Your task to perform on an android device: open app "Grab" (install if not already installed) and enter user name: "interspersion@gmail.com" and password: "aristocrats" Image 0: 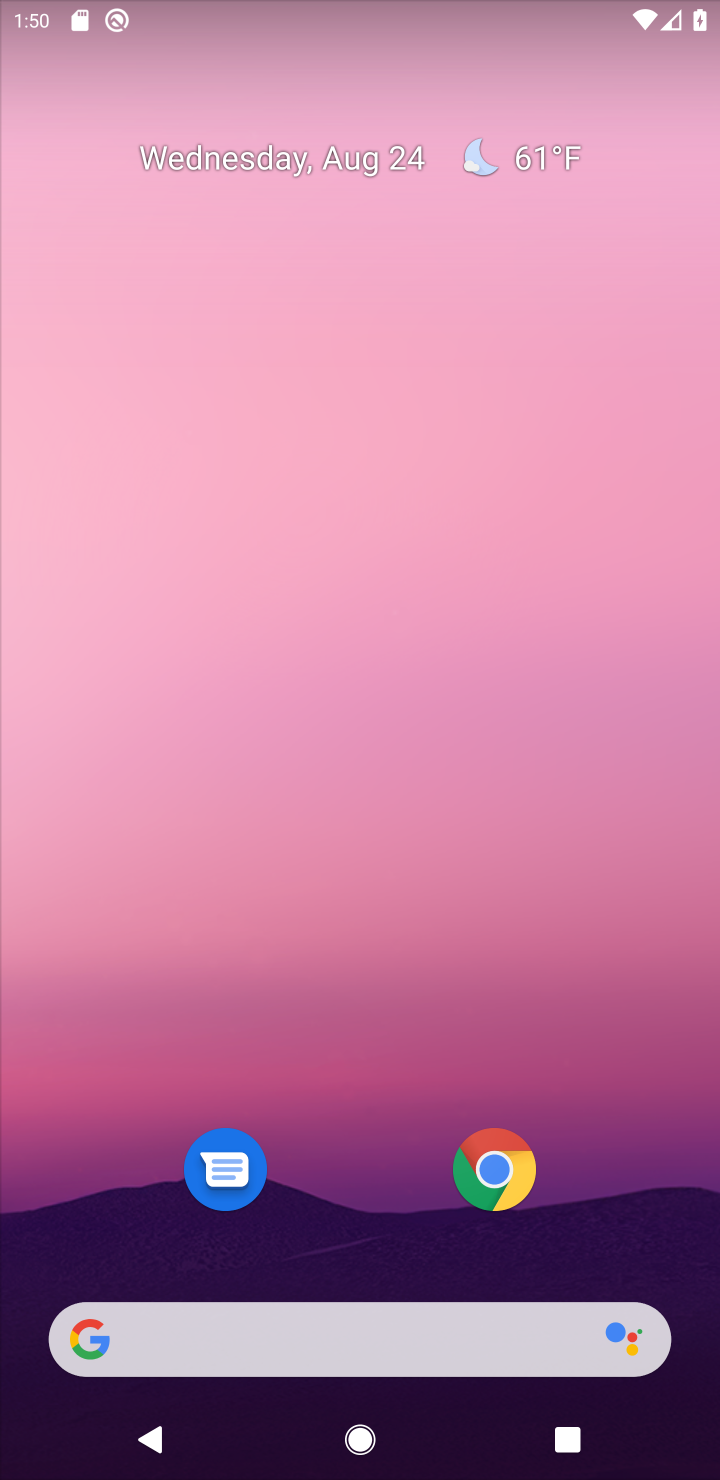
Step 0: drag from (408, 1251) to (74, 201)
Your task to perform on an android device: open app "Grab" (install if not already installed) and enter user name: "interspersion@gmail.com" and password: "aristocrats" Image 1: 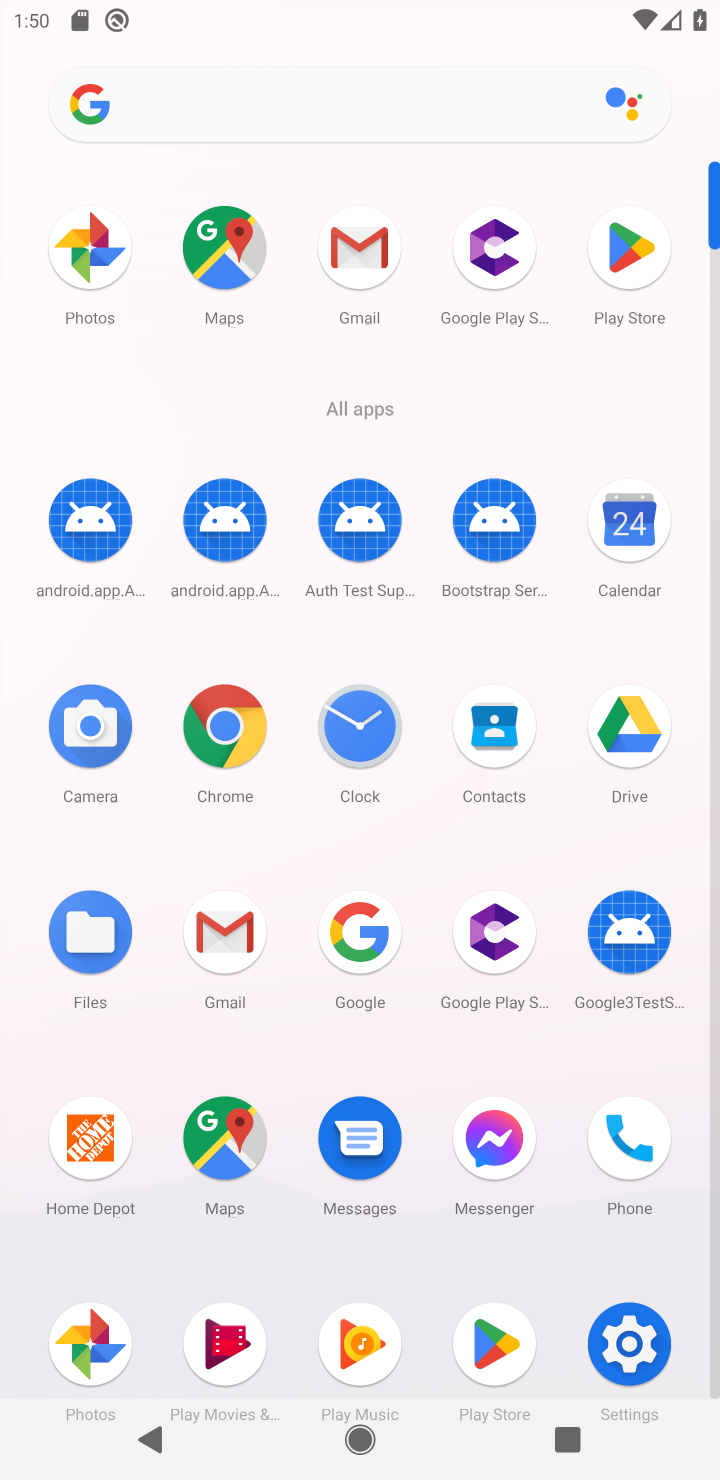
Step 1: click (616, 214)
Your task to perform on an android device: open app "Grab" (install if not already installed) and enter user name: "interspersion@gmail.com" and password: "aristocrats" Image 2: 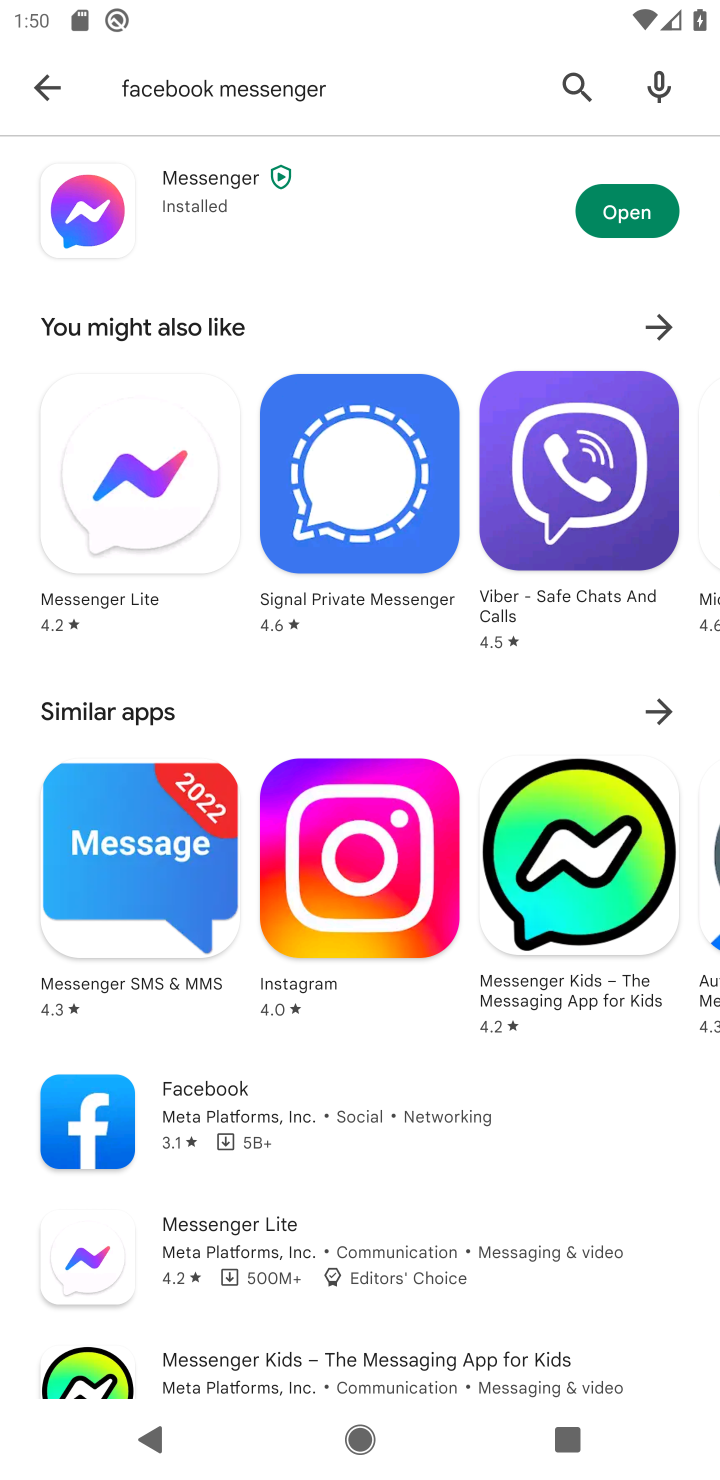
Step 2: click (53, 94)
Your task to perform on an android device: open app "Grab" (install if not already installed) and enter user name: "interspersion@gmail.com" and password: "aristocrats" Image 3: 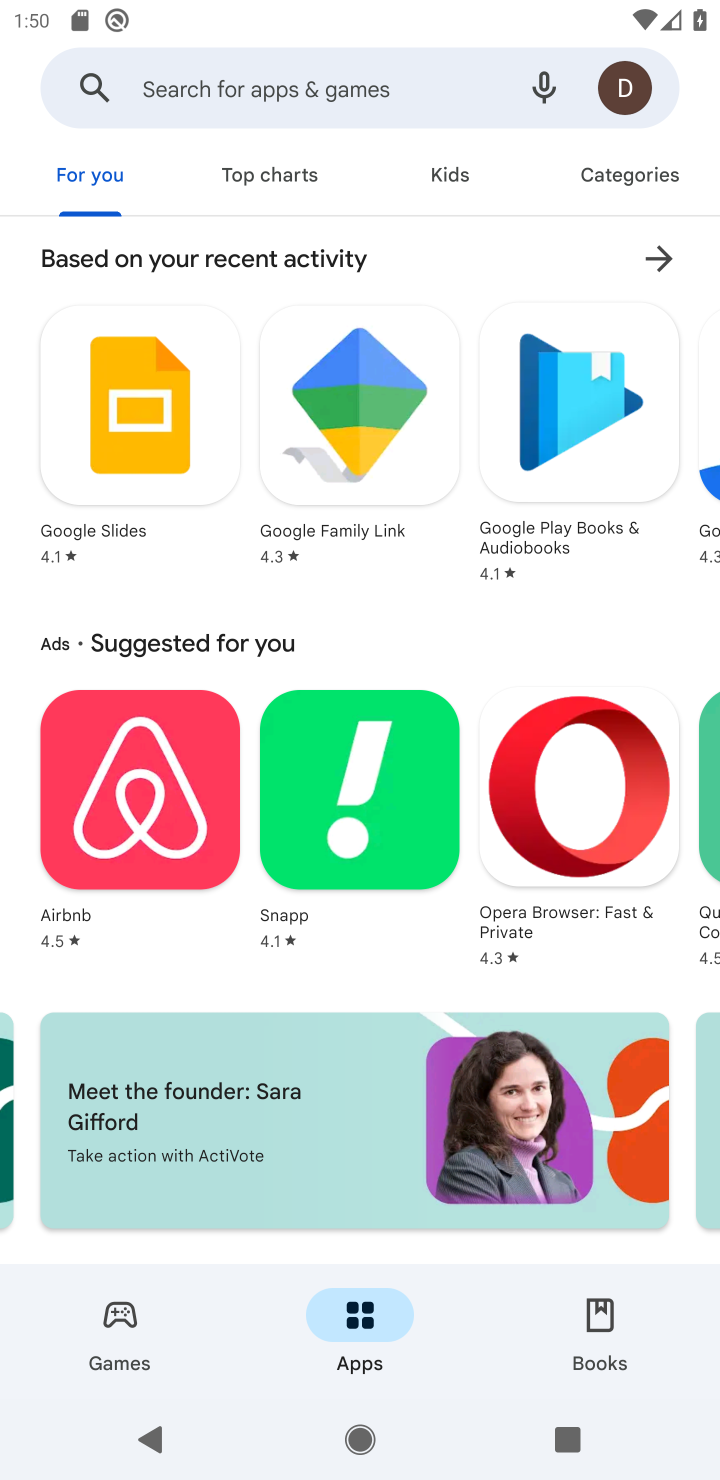
Step 3: click (158, 97)
Your task to perform on an android device: open app "Grab" (install if not already installed) and enter user name: "interspersion@gmail.com" and password: "aristocrats" Image 4: 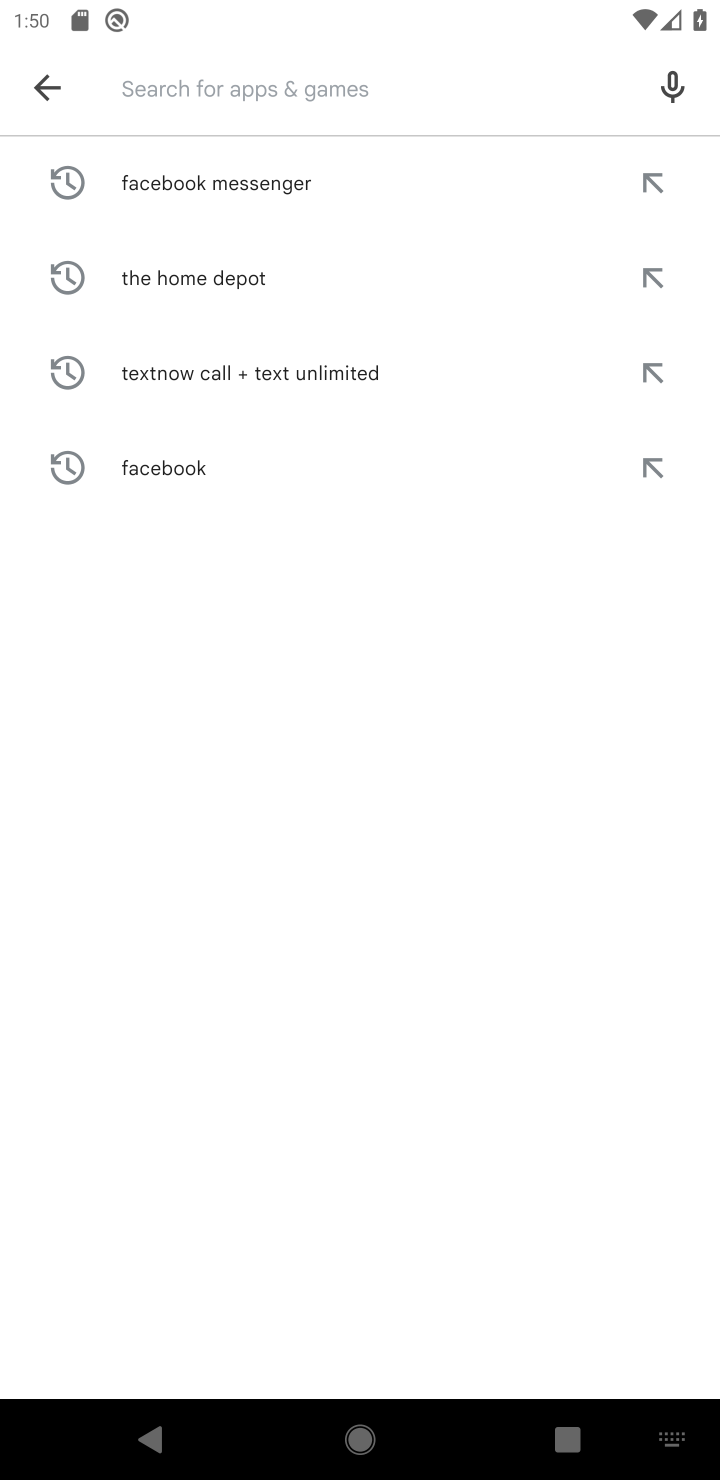
Step 4: type "Grab"
Your task to perform on an android device: open app "Grab" (install if not already installed) and enter user name: "interspersion@gmail.com" and password: "aristocrats" Image 5: 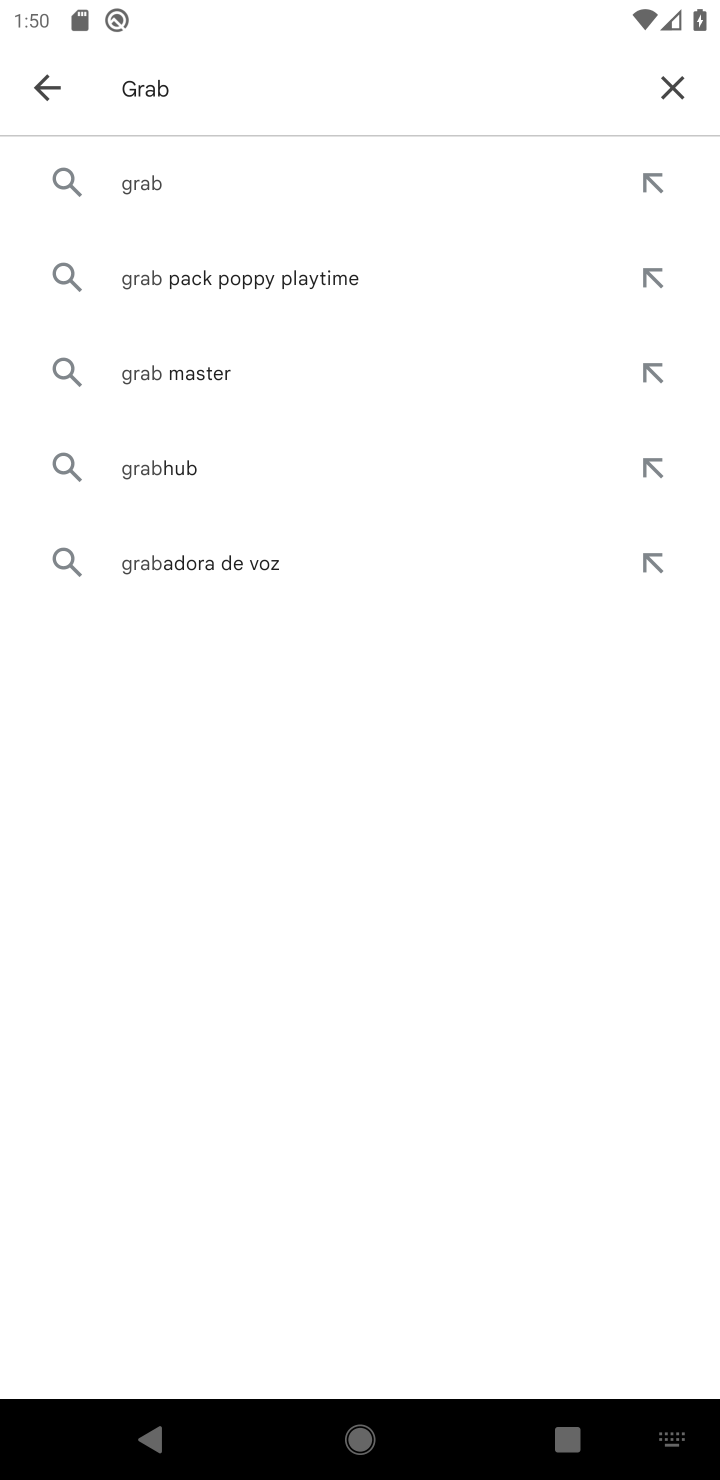
Step 5: click (201, 181)
Your task to perform on an android device: open app "Grab" (install if not already installed) and enter user name: "interspersion@gmail.com" and password: "aristocrats" Image 6: 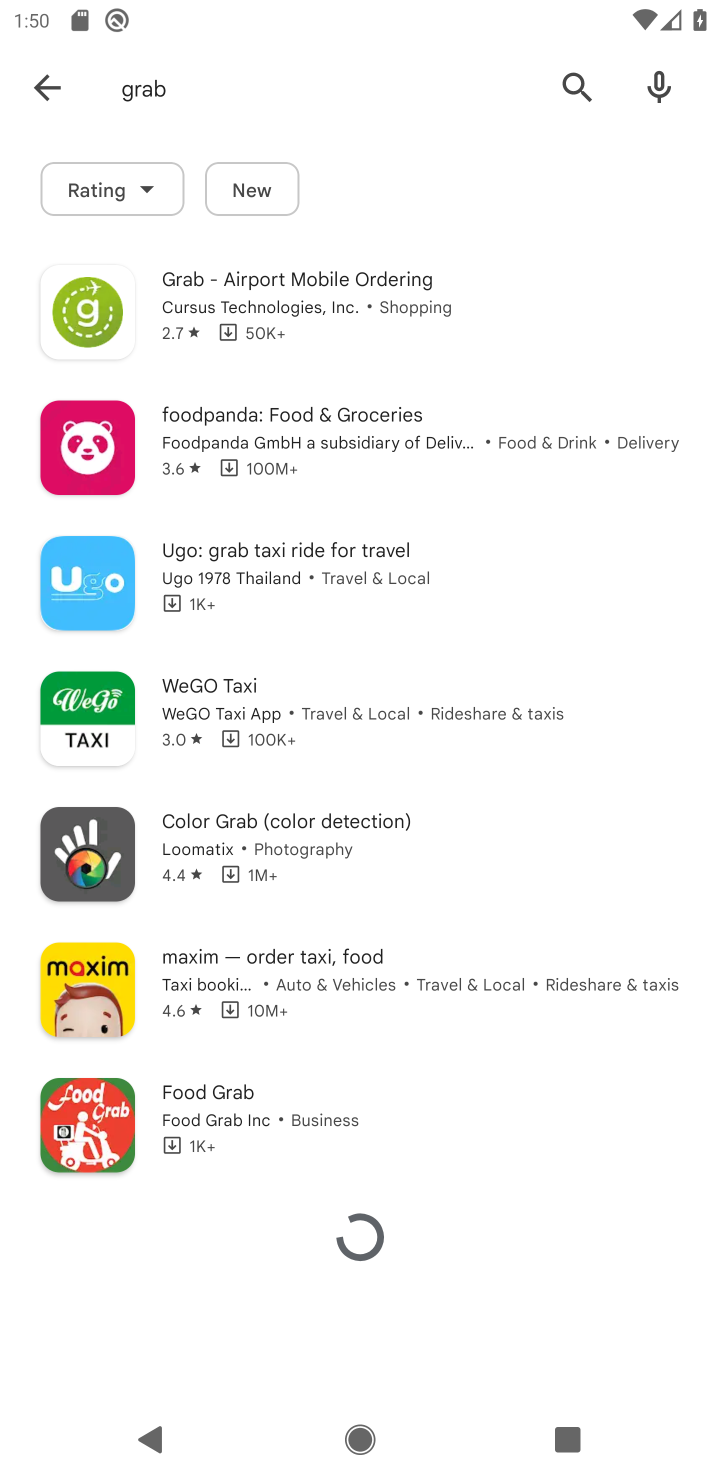
Step 6: click (368, 342)
Your task to perform on an android device: open app "Grab" (install if not already installed) and enter user name: "interspersion@gmail.com" and password: "aristocrats" Image 7: 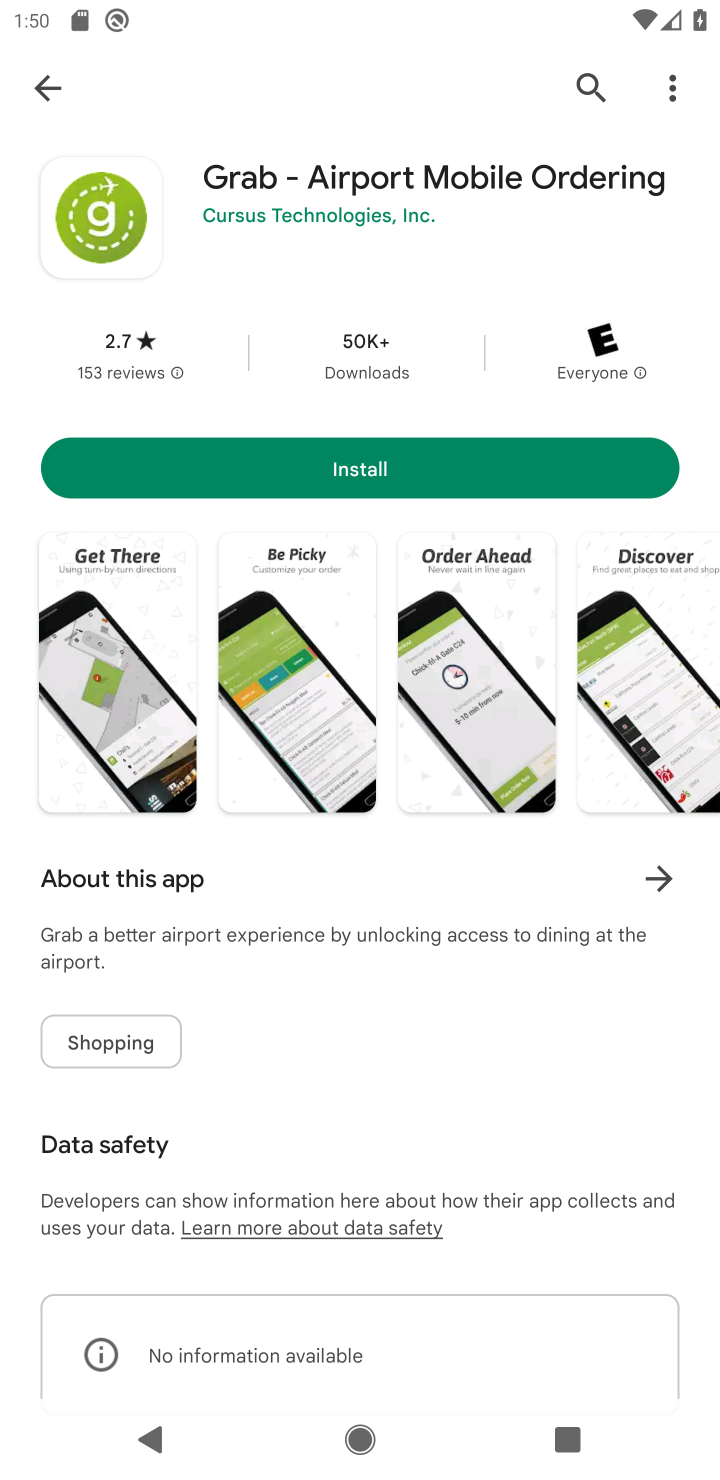
Step 7: click (295, 461)
Your task to perform on an android device: open app "Grab" (install if not already installed) and enter user name: "interspersion@gmail.com" and password: "aristocrats" Image 8: 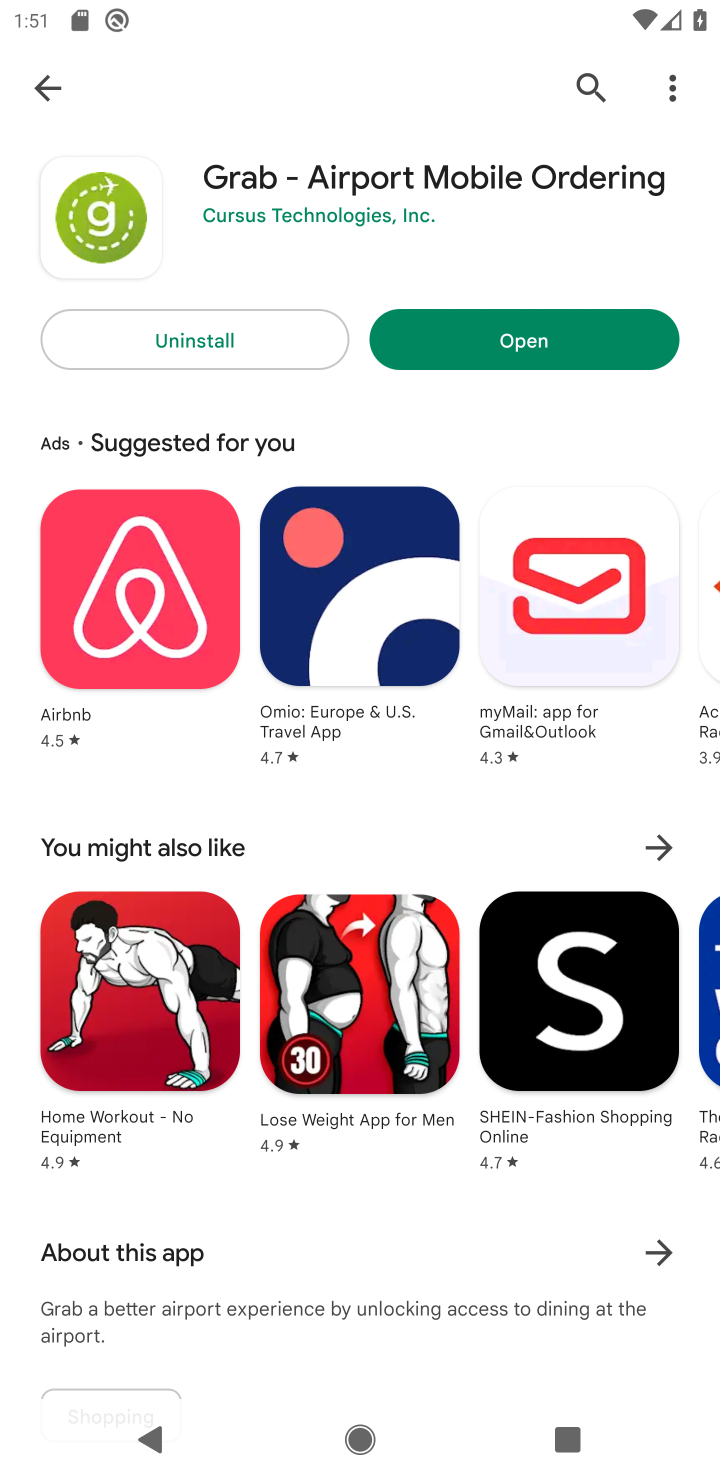
Step 8: click (587, 315)
Your task to perform on an android device: open app "Grab" (install if not already installed) and enter user name: "interspersion@gmail.com" and password: "aristocrats" Image 9: 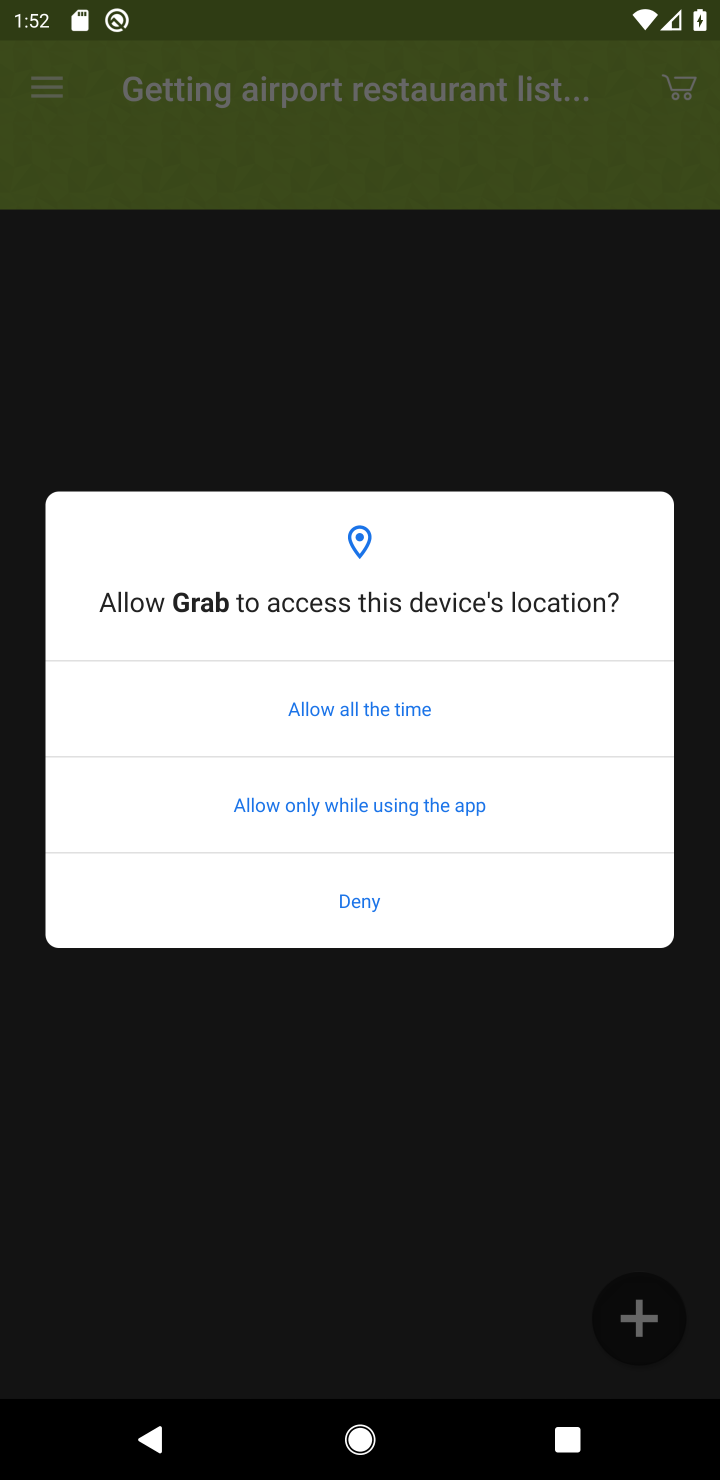
Step 9: click (352, 712)
Your task to perform on an android device: open app "Grab" (install if not already installed) and enter user name: "interspersion@gmail.com" and password: "aristocrats" Image 10: 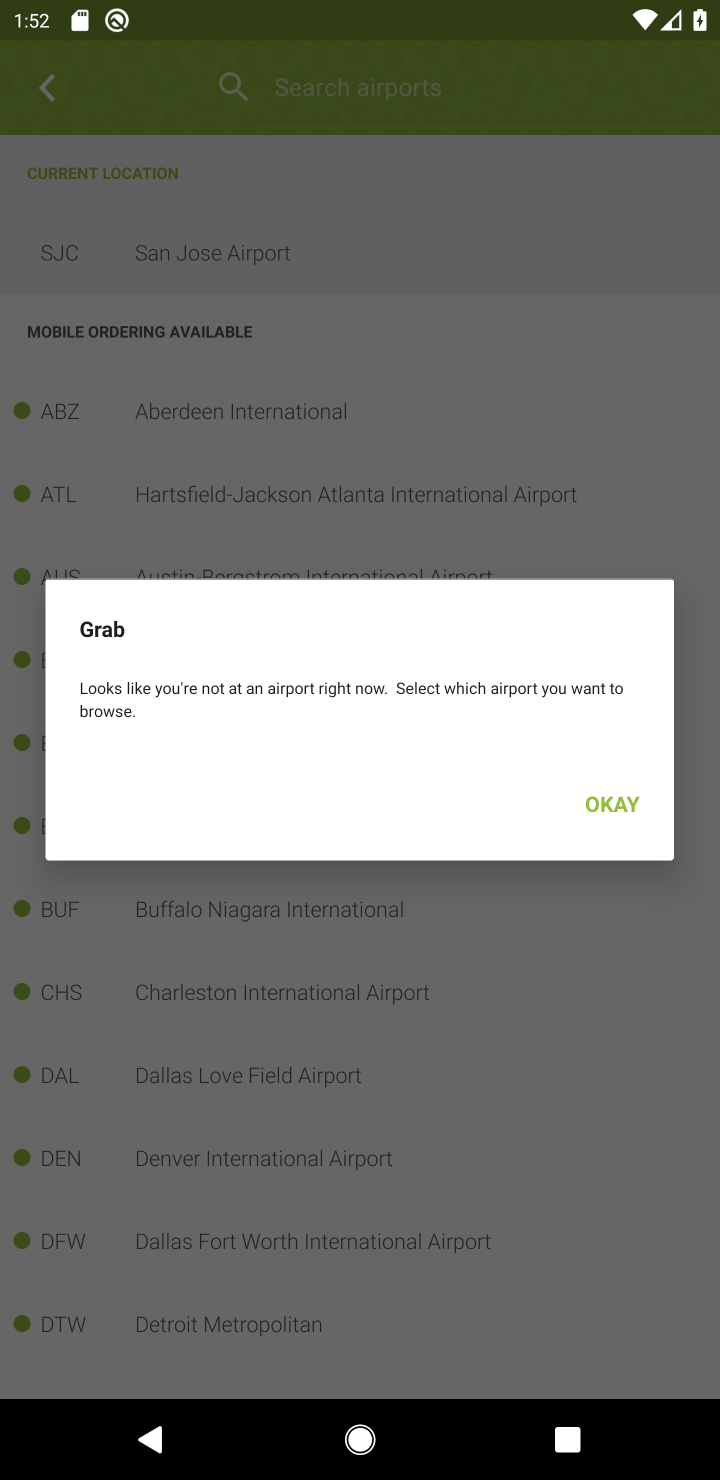
Step 10: click (616, 795)
Your task to perform on an android device: open app "Grab" (install if not already installed) and enter user name: "interspersion@gmail.com" and password: "aristocrats" Image 11: 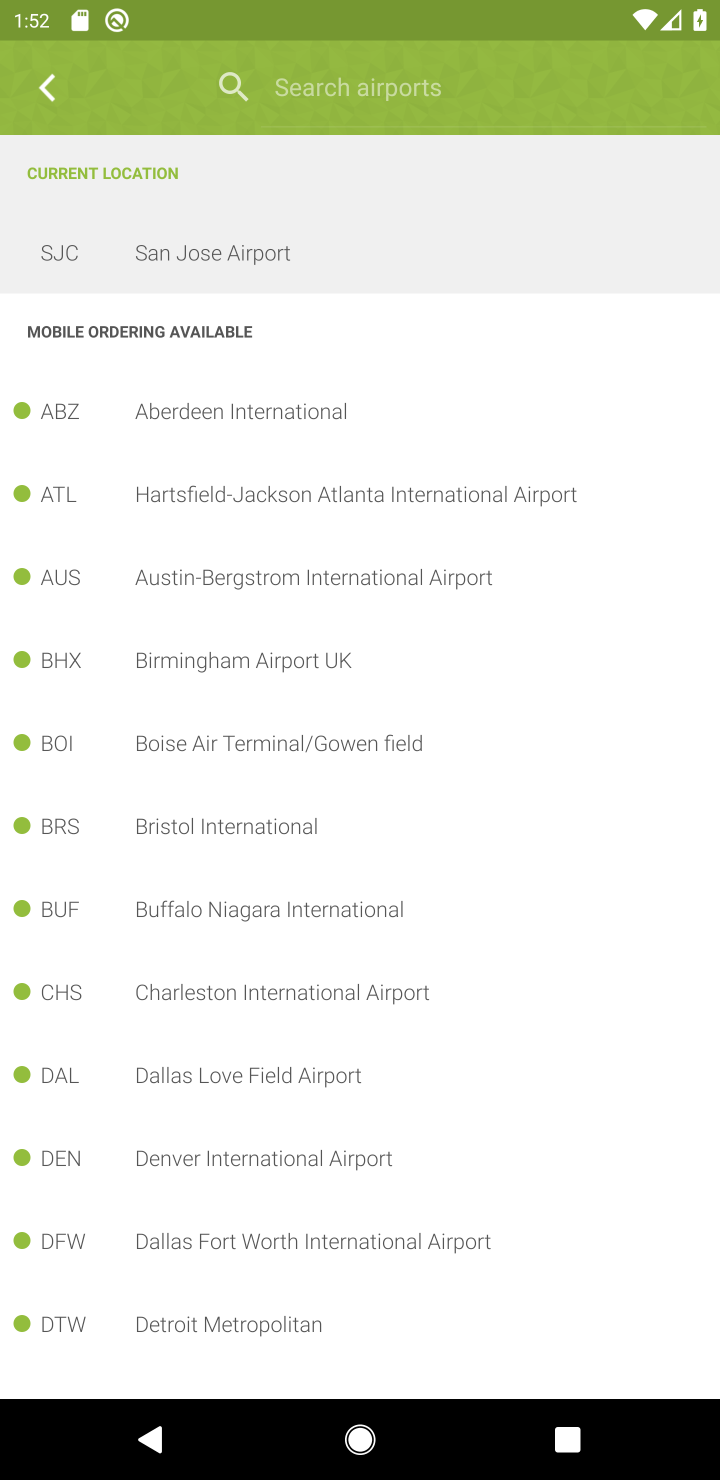
Step 11: click (27, 89)
Your task to perform on an android device: open app "Grab" (install if not already installed) and enter user name: "interspersion@gmail.com" and password: "aristocrats" Image 12: 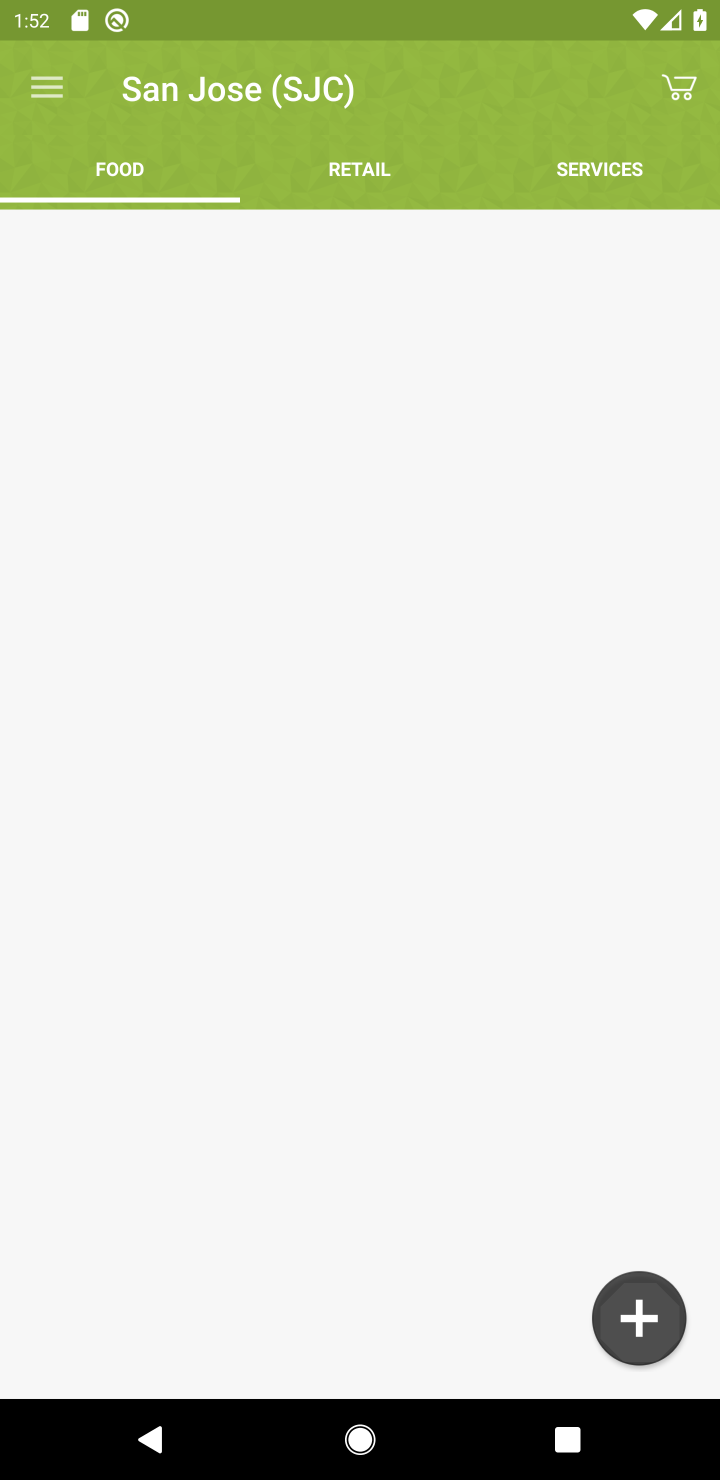
Step 12: click (678, 96)
Your task to perform on an android device: open app "Grab" (install if not already installed) and enter user name: "interspersion@gmail.com" and password: "aristocrats" Image 13: 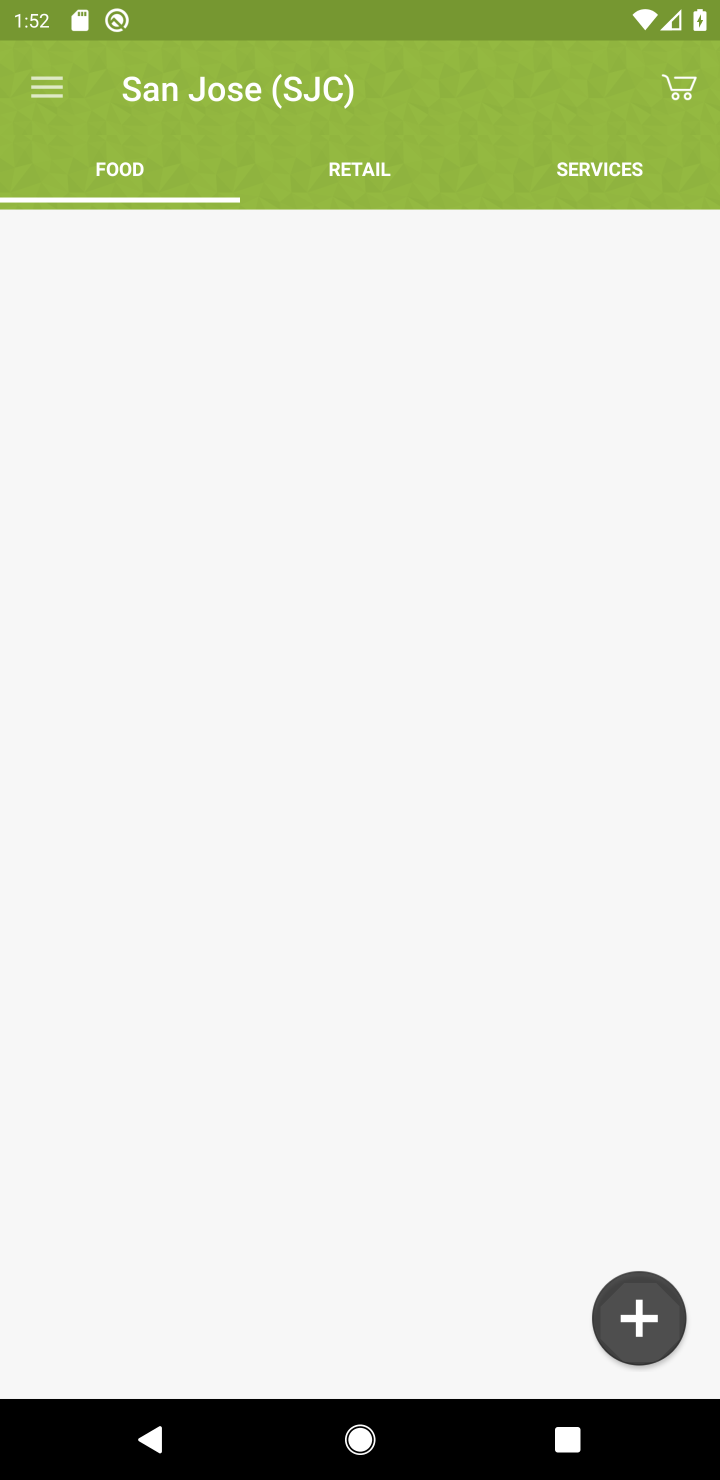
Step 13: click (678, 96)
Your task to perform on an android device: open app "Grab" (install if not already installed) and enter user name: "interspersion@gmail.com" and password: "aristocrats" Image 14: 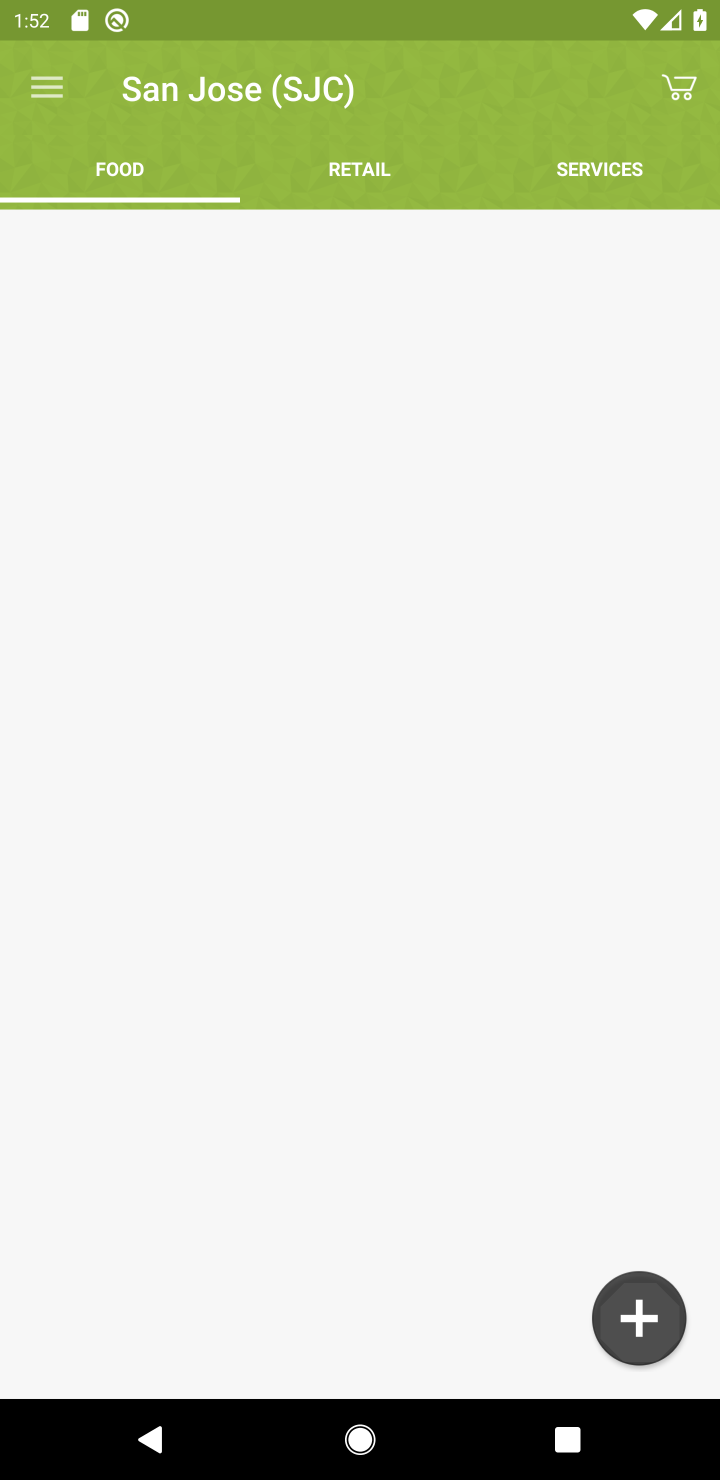
Step 14: click (678, 96)
Your task to perform on an android device: open app "Grab" (install if not already installed) and enter user name: "interspersion@gmail.com" and password: "aristocrats" Image 15: 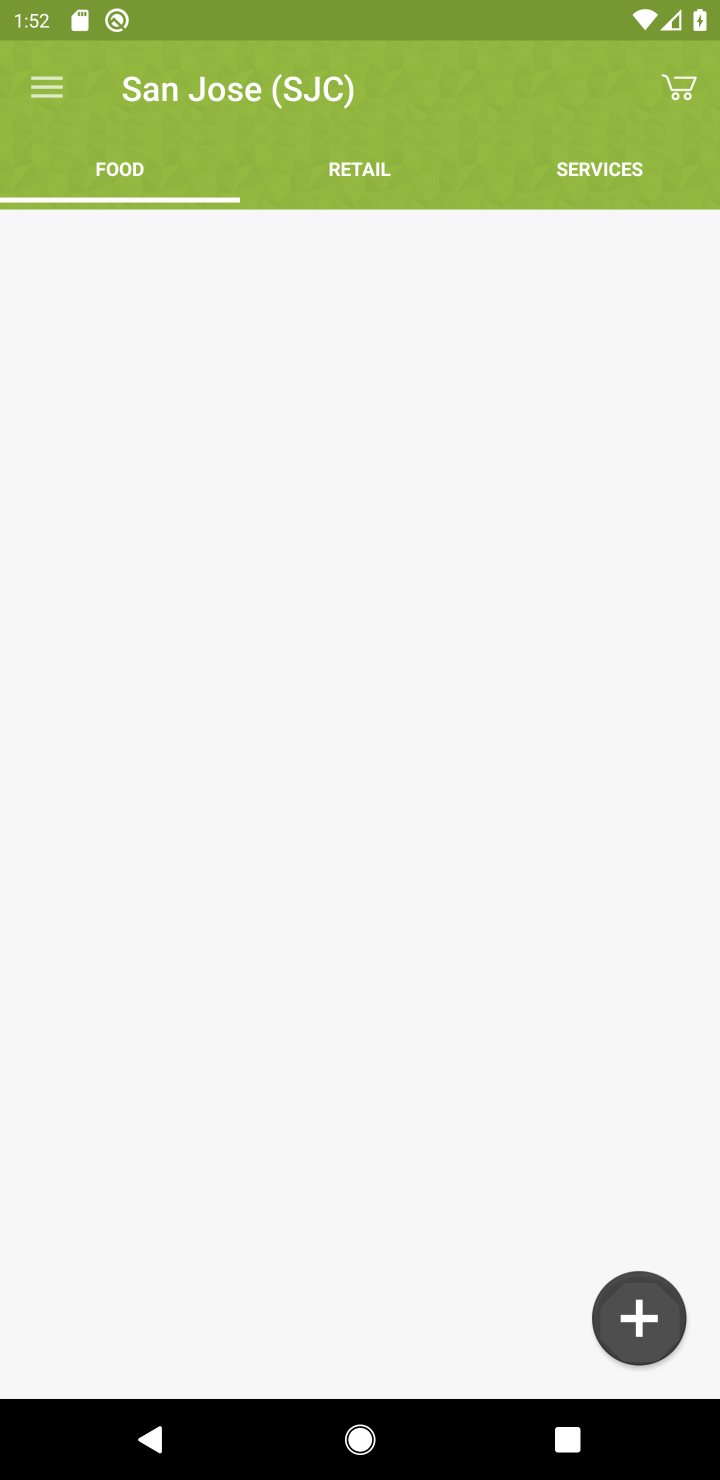
Step 15: click (54, 92)
Your task to perform on an android device: open app "Grab" (install if not already installed) and enter user name: "interspersion@gmail.com" and password: "aristocrats" Image 16: 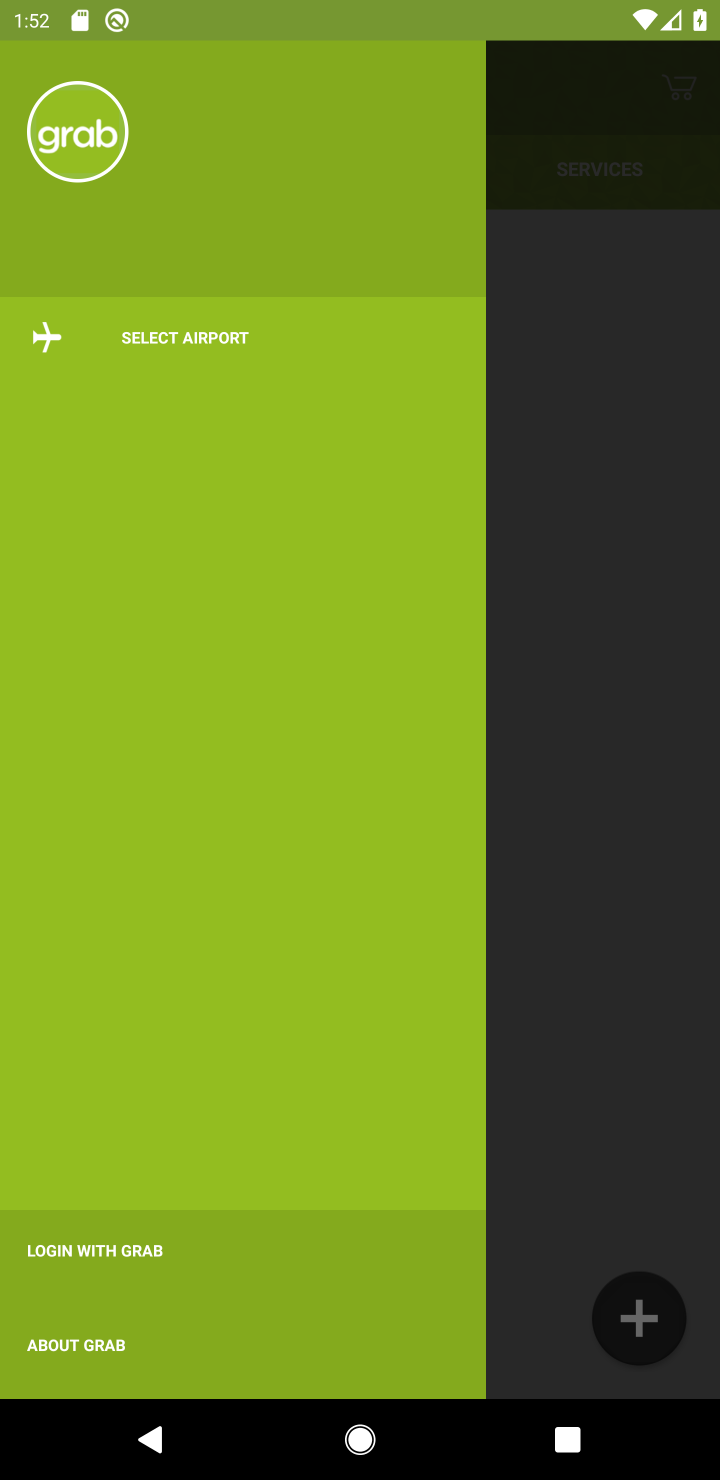
Step 16: click (140, 1267)
Your task to perform on an android device: open app "Grab" (install if not already installed) and enter user name: "interspersion@gmail.com" and password: "aristocrats" Image 17: 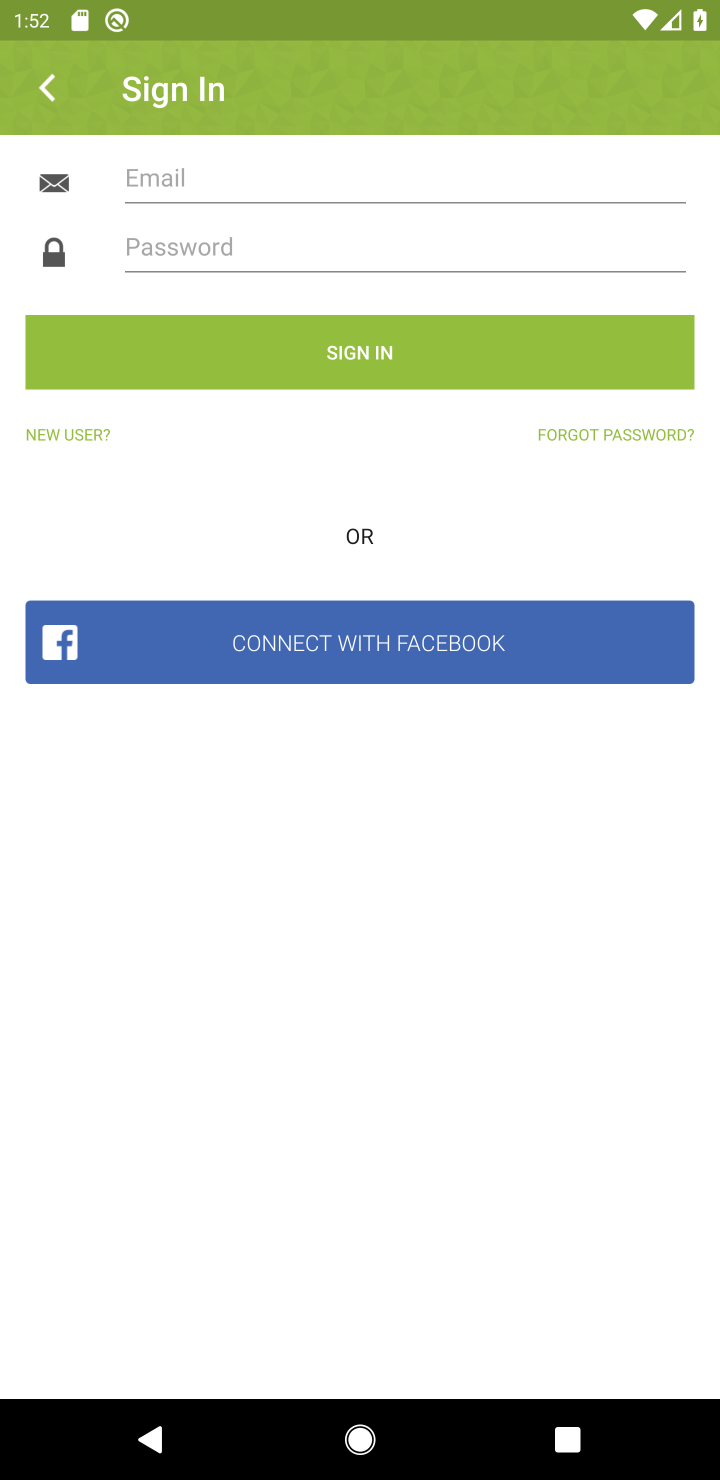
Step 17: click (250, 168)
Your task to perform on an android device: open app "Grab" (install if not already installed) and enter user name: "interspersion@gmail.com" and password: "aristocrats" Image 18: 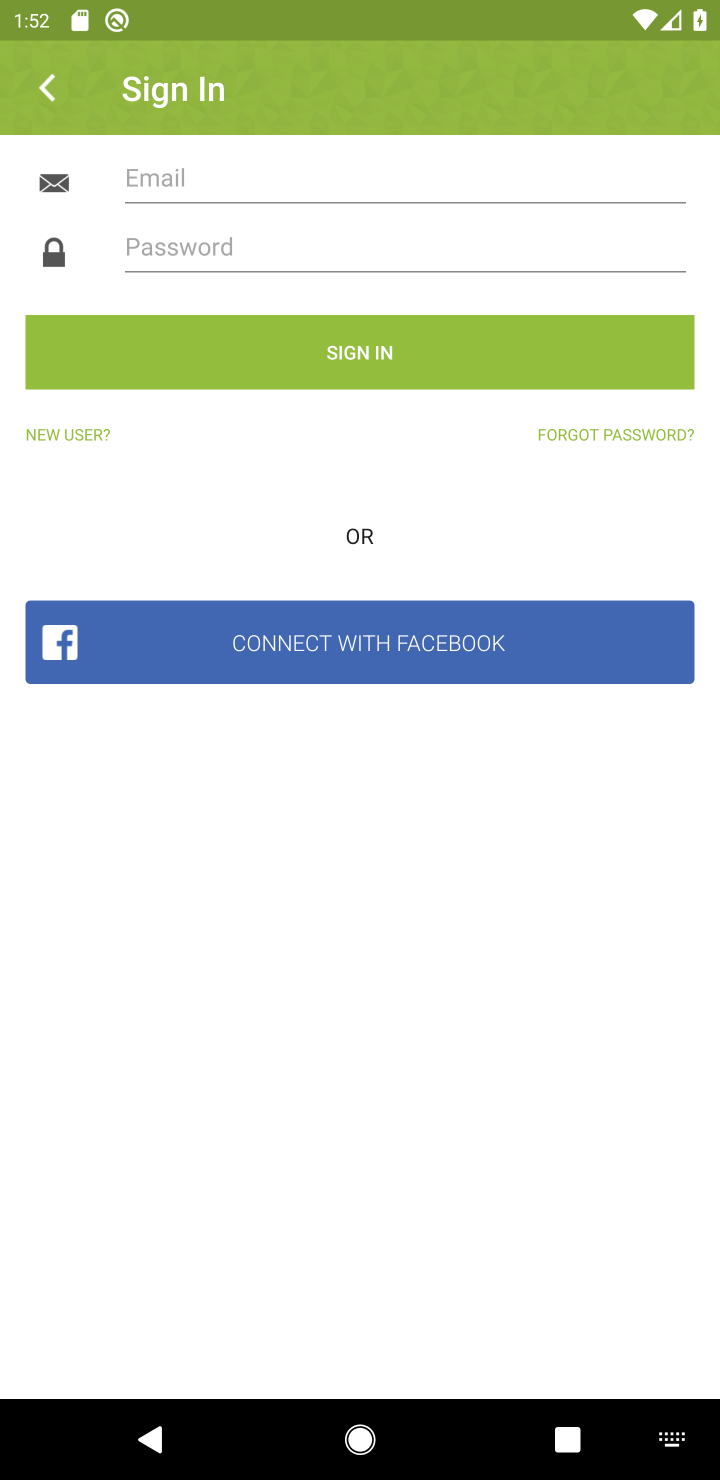
Step 18: type "interspersion@gmail.com"
Your task to perform on an android device: open app "Grab" (install if not already installed) and enter user name: "interspersion@gmail.com" and password: "aristocrats" Image 19: 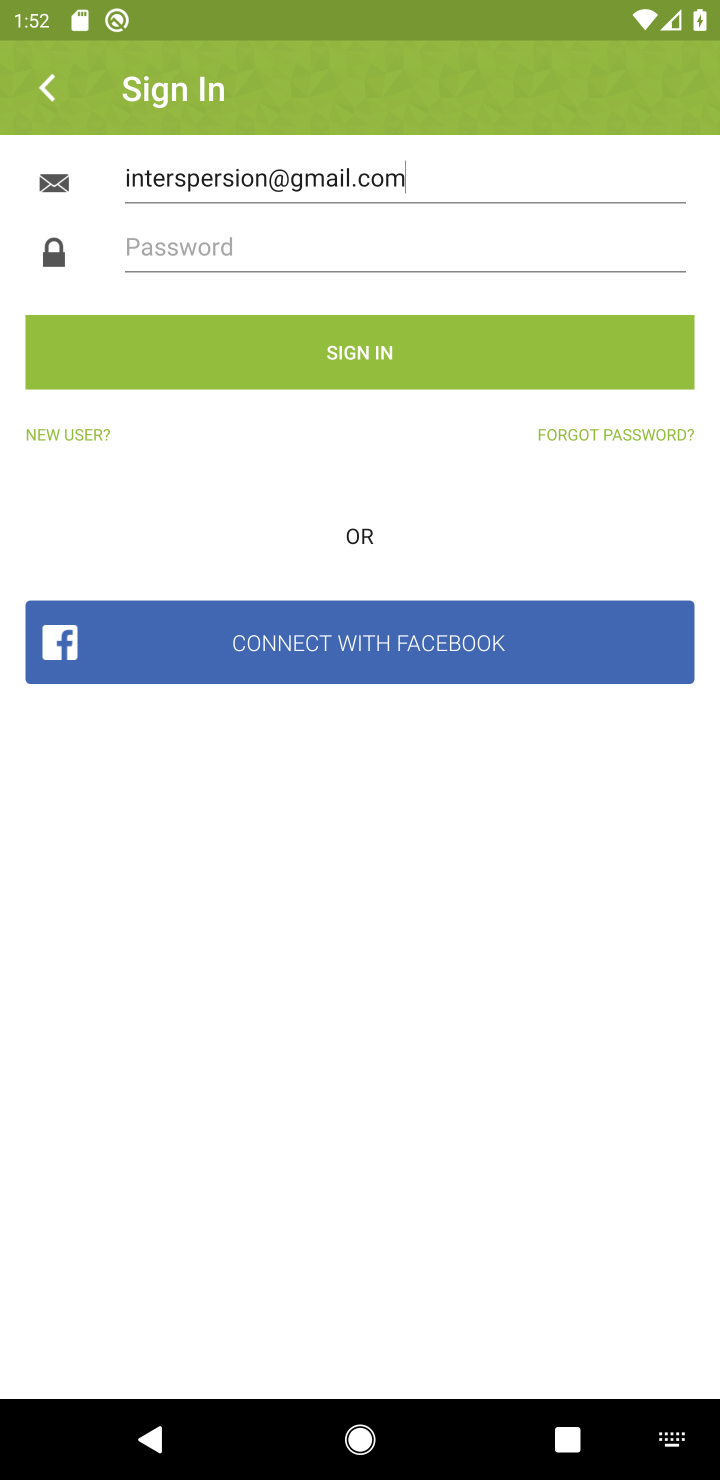
Step 19: click (197, 270)
Your task to perform on an android device: open app "Grab" (install if not already installed) and enter user name: "interspersion@gmail.com" and password: "aristocrats" Image 20: 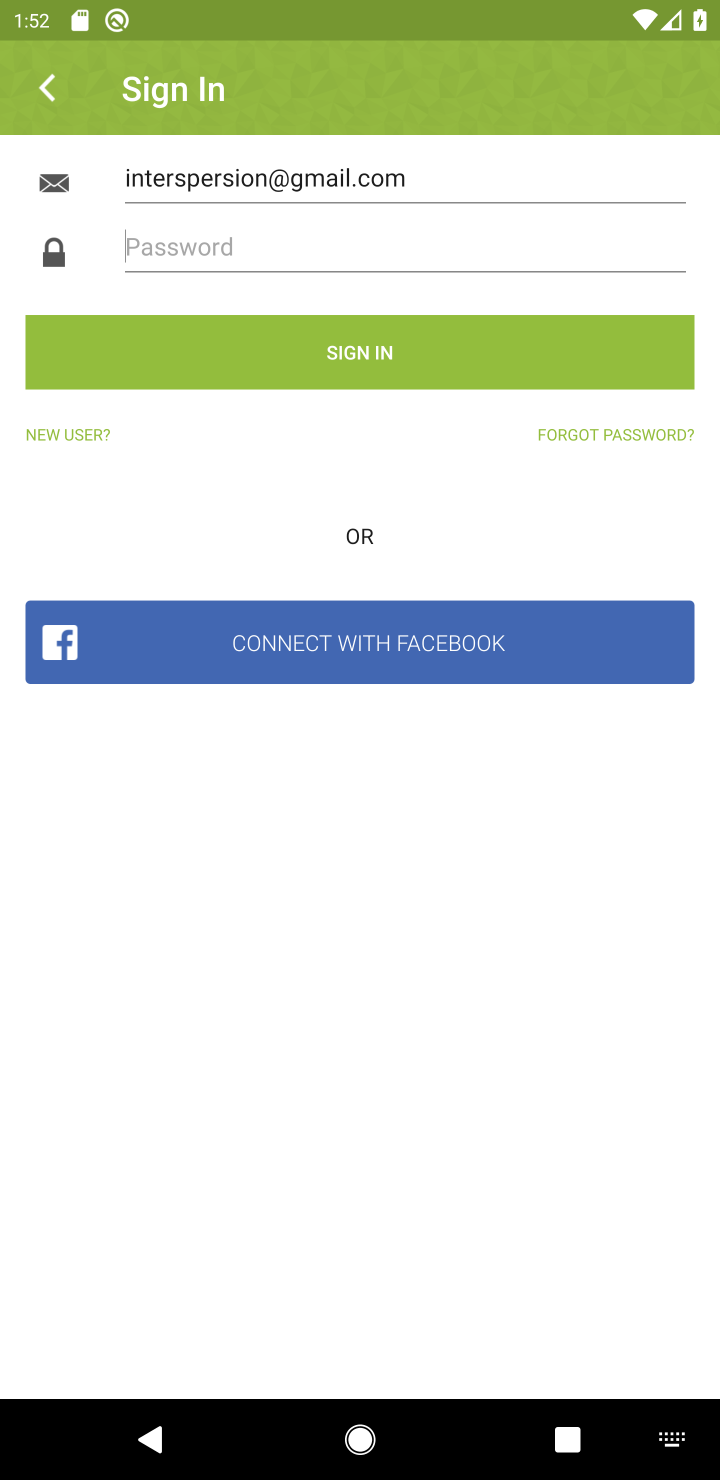
Step 20: type "aristocrats"
Your task to perform on an android device: open app "Grab" (install if not already installed) and enter user name: "interspersion@gmail.com" and password: "aristocrats" Image 21: 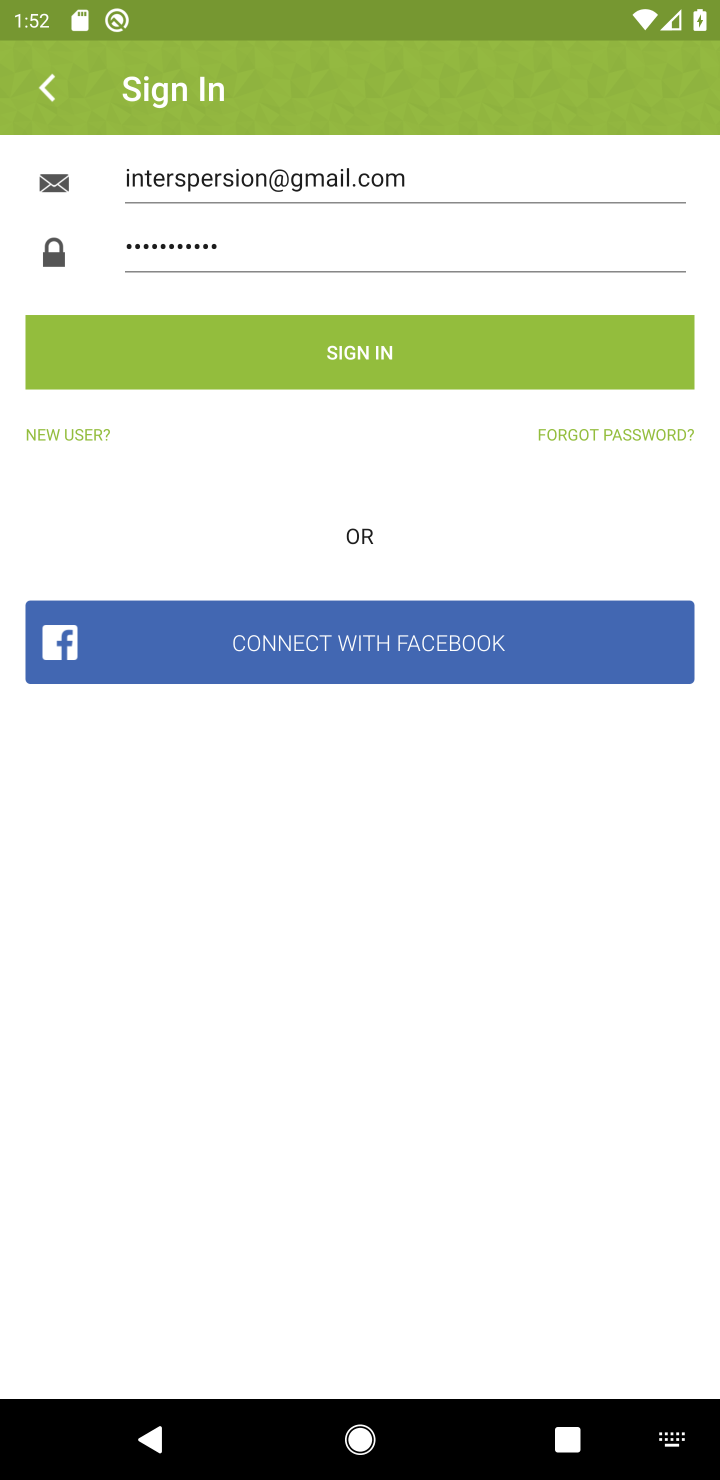
Step 21: task complete